Your task to perform on an android device: clear all cookies in the chrome app Image 0: 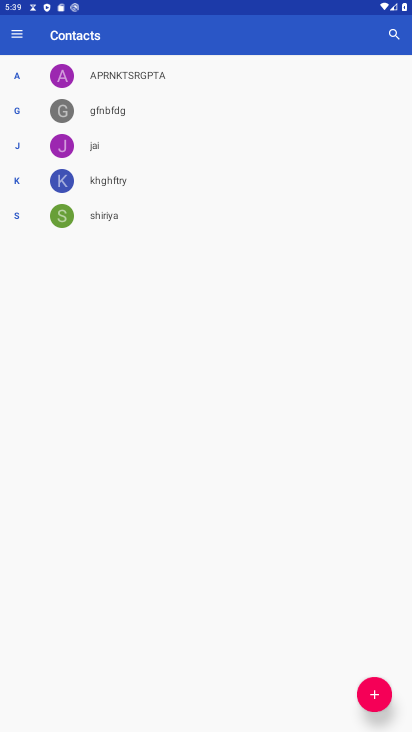
Step 0: press home button
Your task to perform on an android device: clear all cookies in the chrome app Image 1: 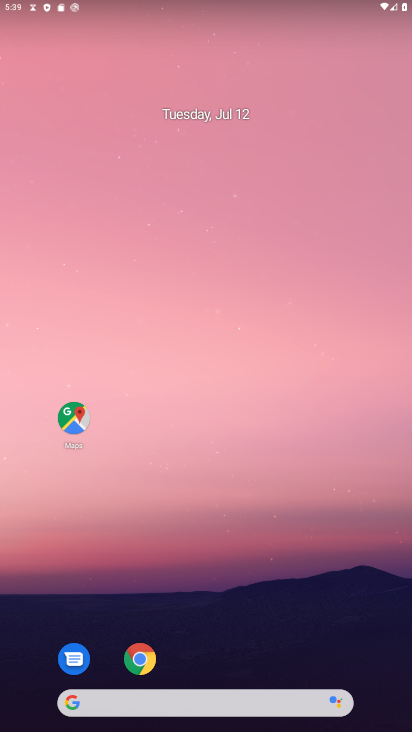
Step 1: click (142, 671)
Your task to perform on an android device: clear all cookies in the chrome app Image 2: 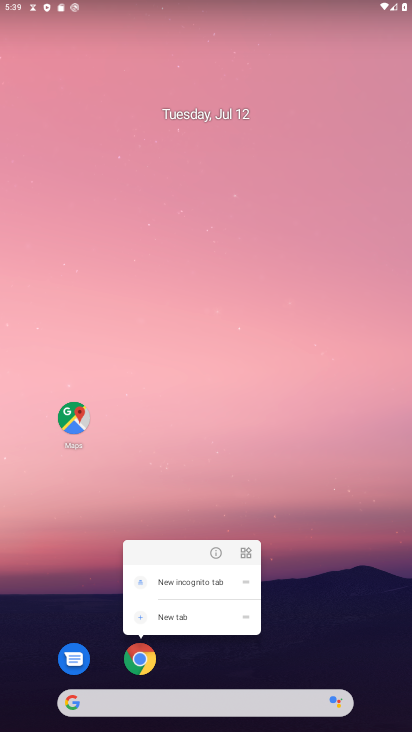
Step 2: click (143, 670)
Your task to perform on an android device: clear all cookies in the chrome app Image 3: 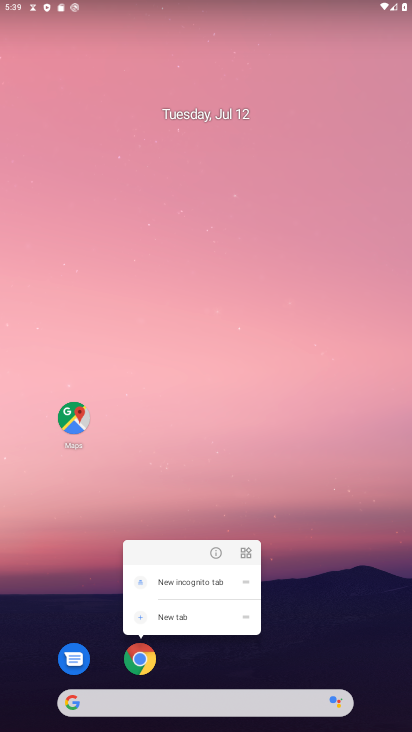
Step 3: click (142, 657)
Your task to perform on an android device: clear all cookies in the chrome app Image 4: 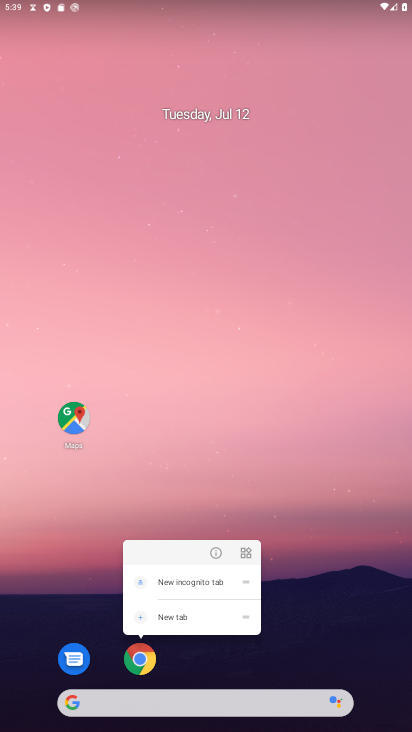
Step 4: click (140, 652)
Your task to perform on an android device: clear all cookies in the chrome app Image 5: 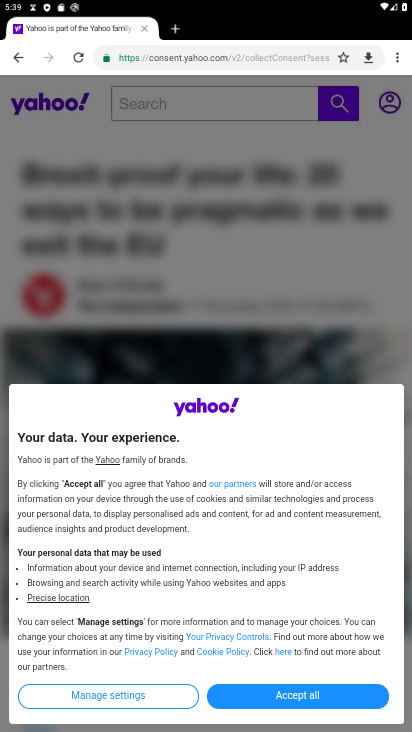
Step 5: click (396, 51)
Your task to perform on an android device: clear all cookies in the chrome app Image 6: 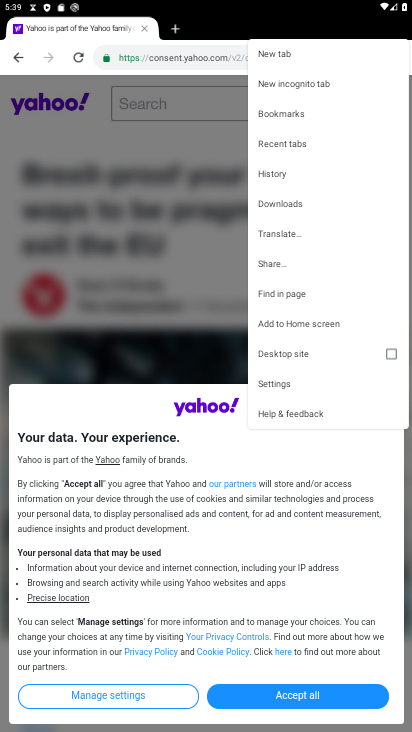
Step 6: click (276, 381)
Your task to perform on an android device: clear all cookies in the chrome app Image 7: 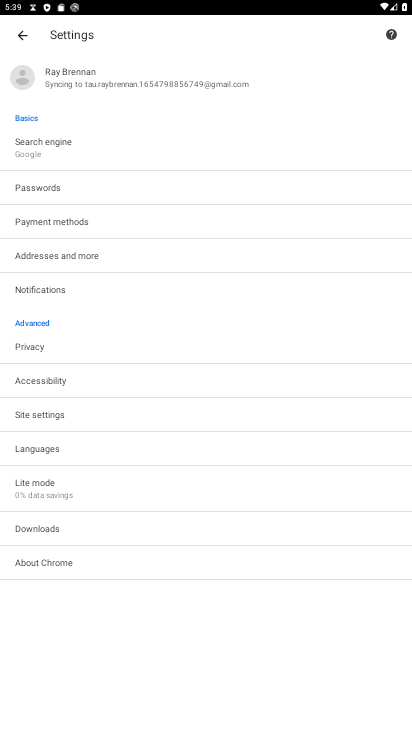
Step 7: click (21, 27)
Your task to perform on an android device: clear all cookies in the chrome app Image 8: 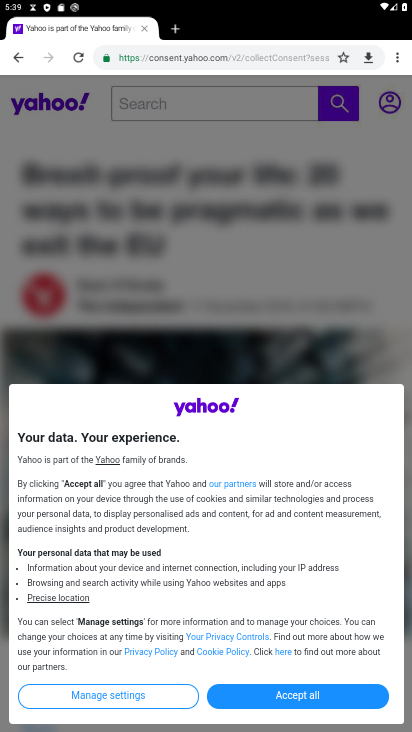
Step 8: click (397, 51)
Your task to perform on an android device: clear all cookies in the chrome app Image 9: 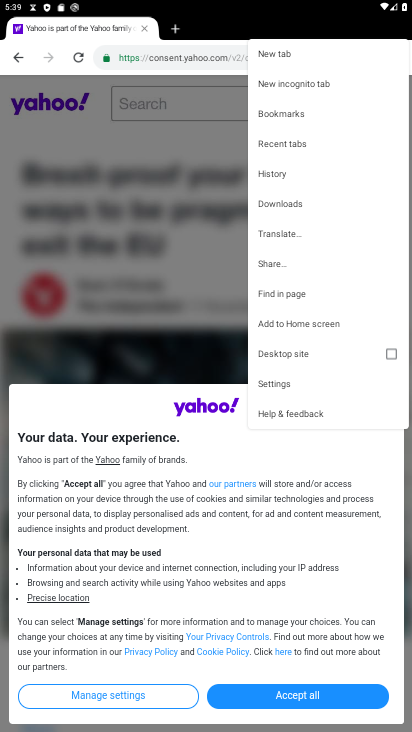
Step 9: click (280, 172)
Your task to perform on an android device: clear all cookies in the chrome app Image 10: 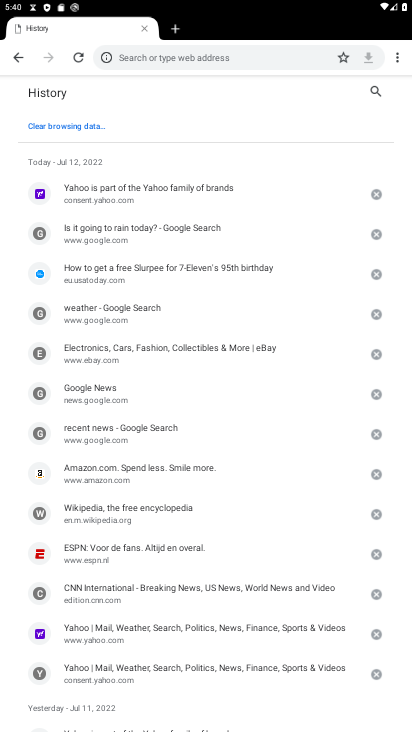
Step 10: click (78, 126)
Your task to perform on an android device: clear all cookies in the chrome app Image 11: 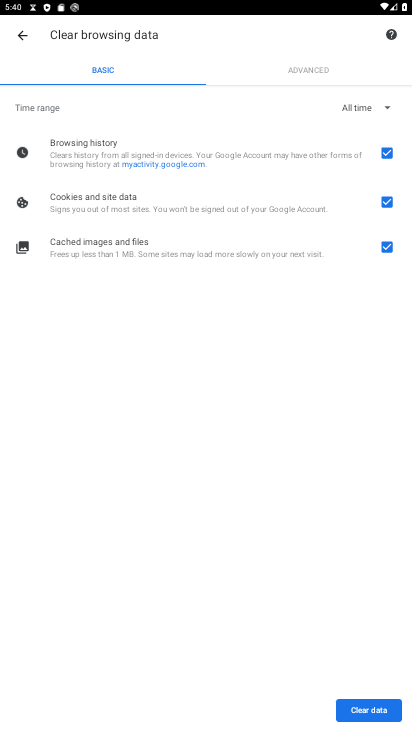
Step 11: click (384, 146)
Your task to perform on an android device: clear all cookies in the chrome app Image 12: 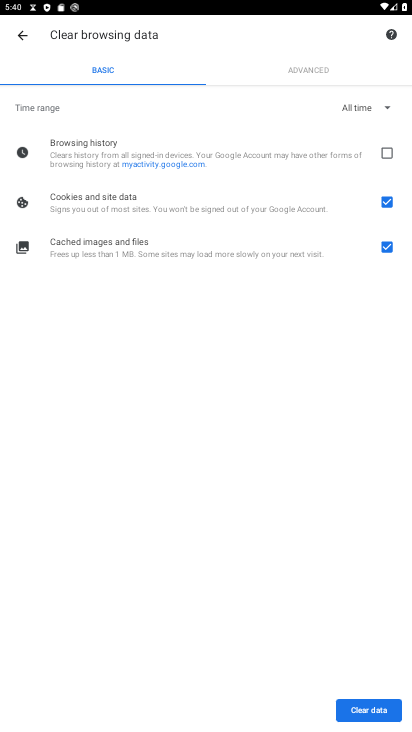
Step 12: click (388, 251)
Your task to perform on an android device: clear all cookies in the chrome app Image 13: 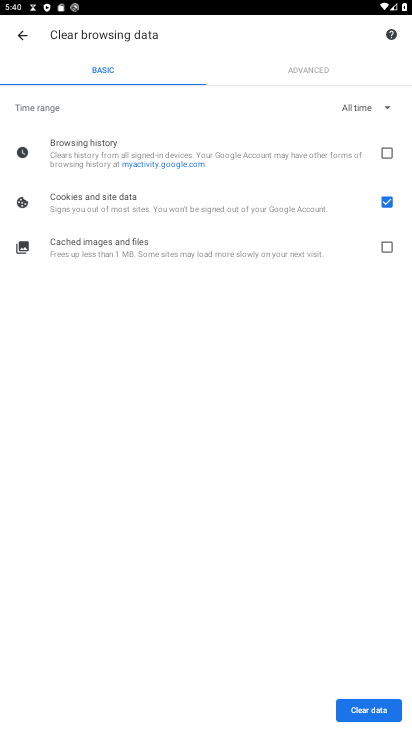
Step 13: click (368, 713)
Your task to perform on an android device: clear all cookies in the chrome app Image 14: 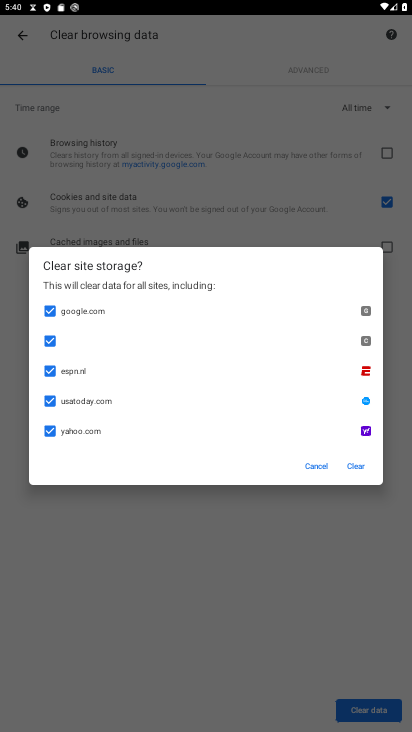
Step 14: click (359, 465)
Your task to perform on an android device: clear all cookies in the chrome app Image 15: 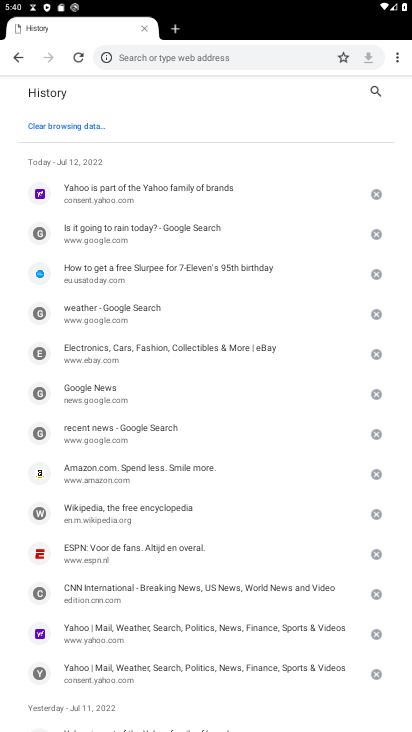
Step 15: task complete